Your task to perform on an android device: Go to Yahoo.com Image 0: 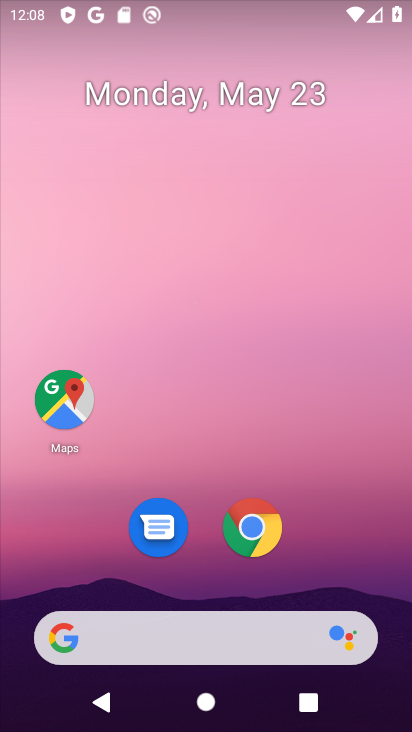
Step 0: drag from (246, 672) to (246, 130)
Your task to perform on an android device: Go to Yahoo.com Image 1: 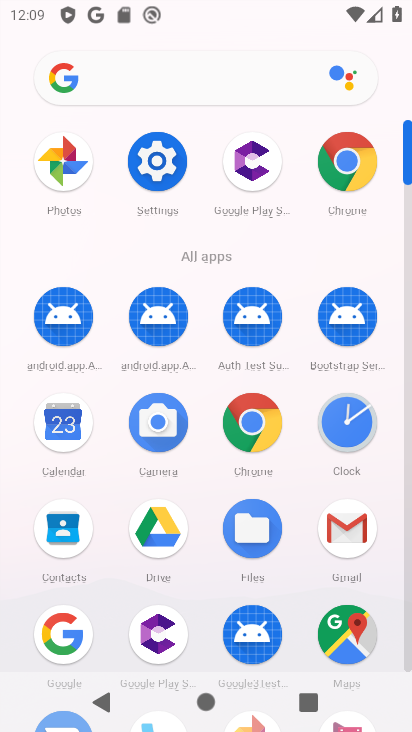
Step 1: click (349, 147)
Your task to perform on an android device: Go to Yahoo.com Image 2: 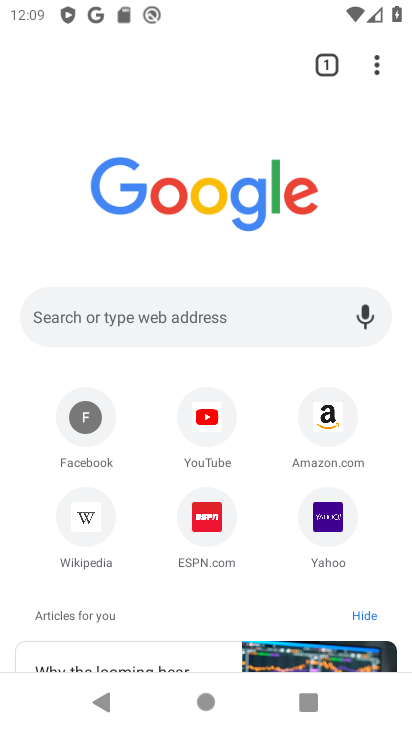
Step 2: click (312, 526)
Your task to perform on an android device: Go to Yahoo.com Image 3: 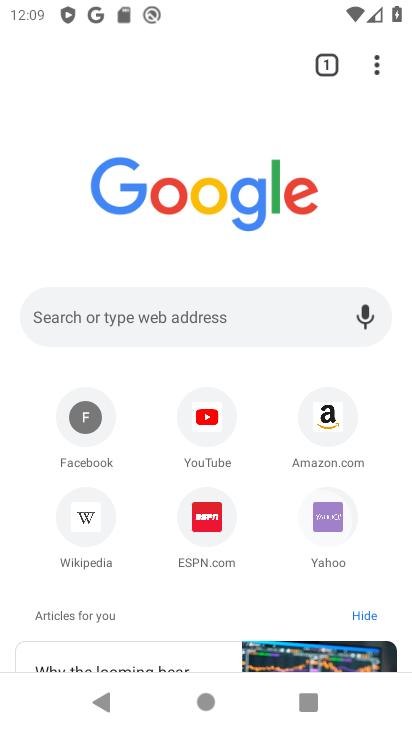
Step 3: click (337, 509)
Your task to perform on an android device: Go to Yahoo.com Image 4: 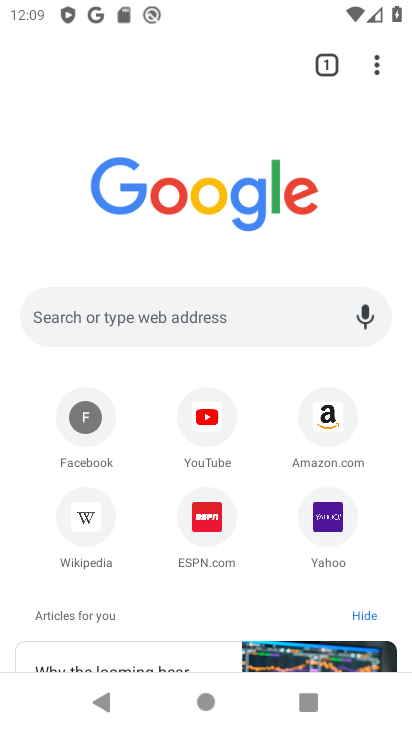
Step 4: click (337, 509)
Your task to perform on an android device: Go to Yahoo.com Image 5: 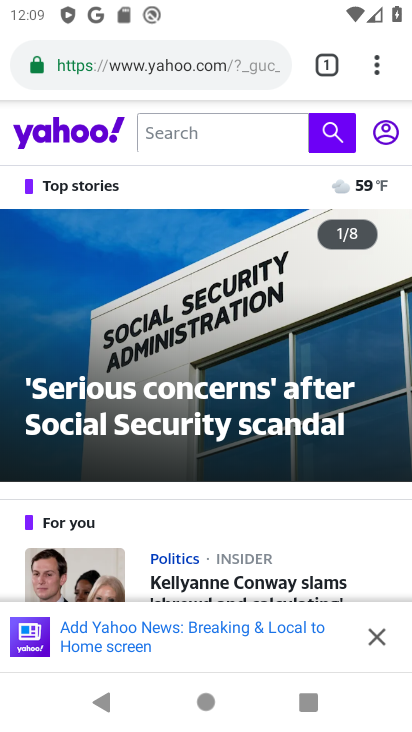
Step 5: task complete